Your task to perform on an android device: Set the phone to "Do not disturb". Image 0: 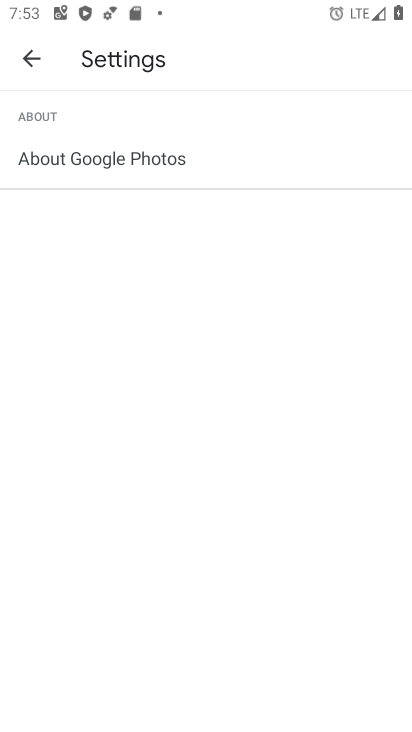
Step 0: press home button
Your task to perform on an android device: Set the phone to "Do not disturb". Image 1: 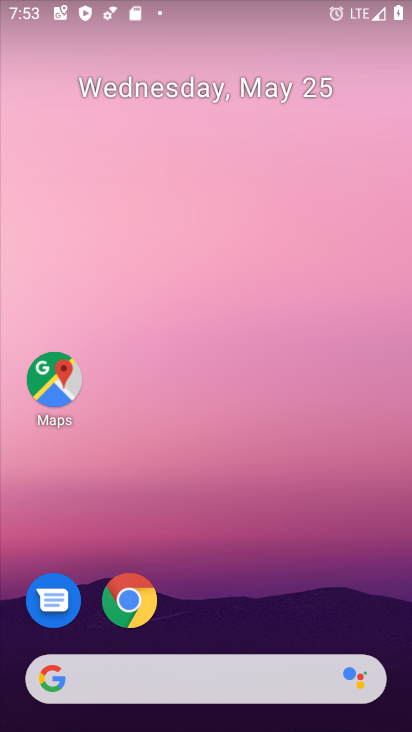
Step 1: drag from (285, 9) to (250, 591)
Your task to perform on an android device: Set the phone to "Do not disturb". Image 2: 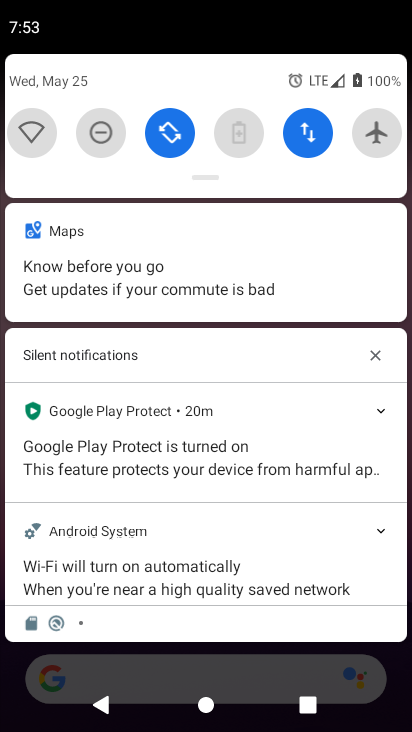
Step 2: click (100, 128)
Your task to perform on an android device: Set the phone to "Do not disturb". Image 3: 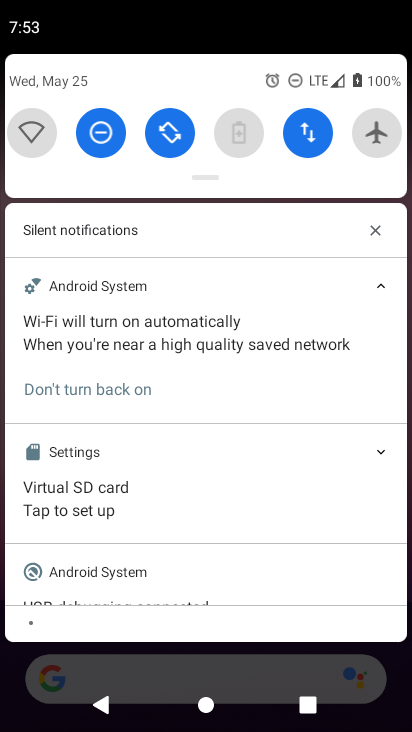
Step 3: task complete